Your task to perform on an android device: Open Google Chrome Image 0: 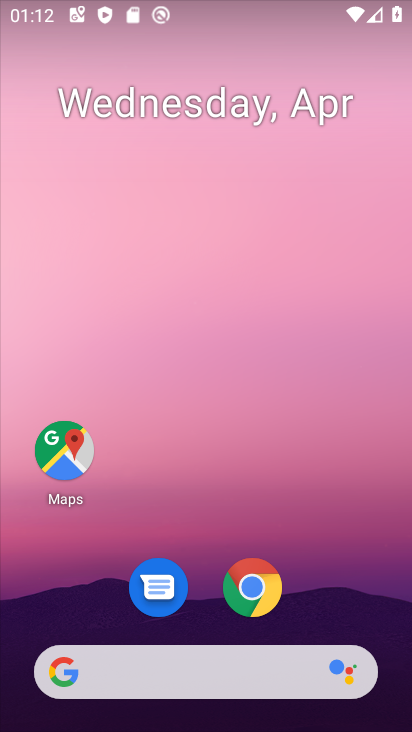
Step 0: click (245, 589)
Your task to perform on an android device: Open Google Chrome Image 1: 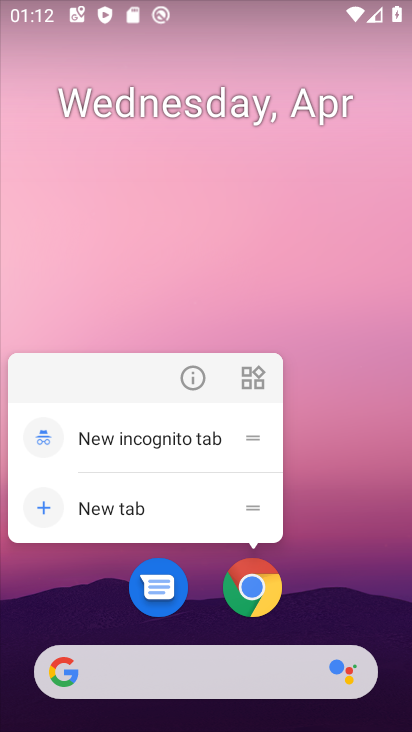
Step 1: click (262, 585)
Your task to perform on an android device: Open Google Chrome Image 2: 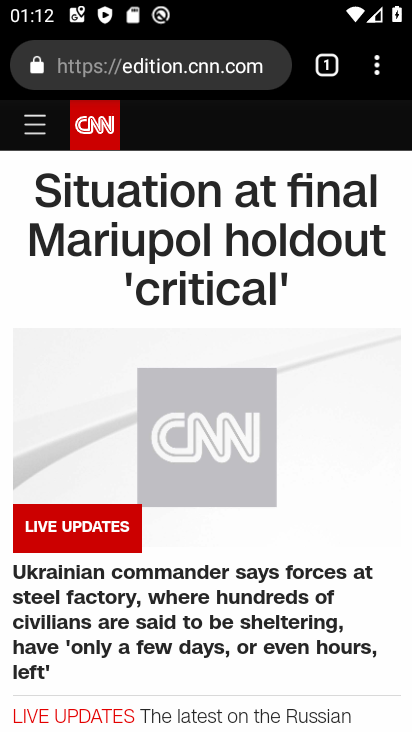
Step 2: task complete